Your task to perform on an android device: Go to internet settings Image 0: 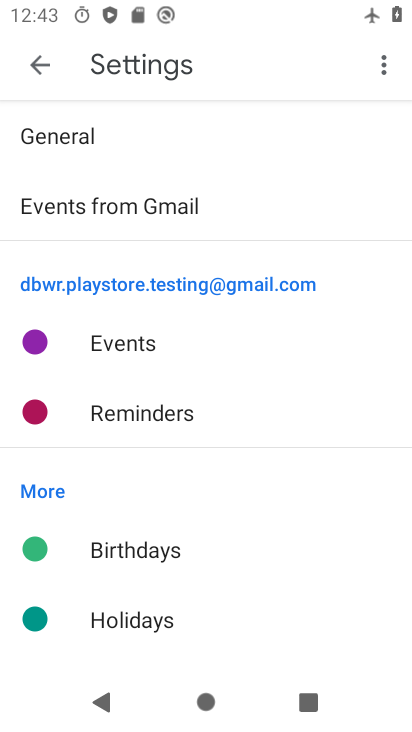
Step 0: press home button
Your task to perform on an android device: Go to internet settings Image 1: 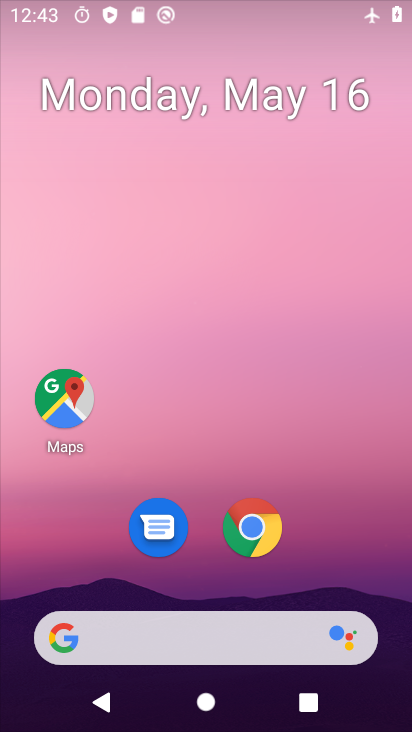
Step 1: drag from (160, 636) to (332, 21)
Your task to perform on an android device: Go to internet settings Image 2: 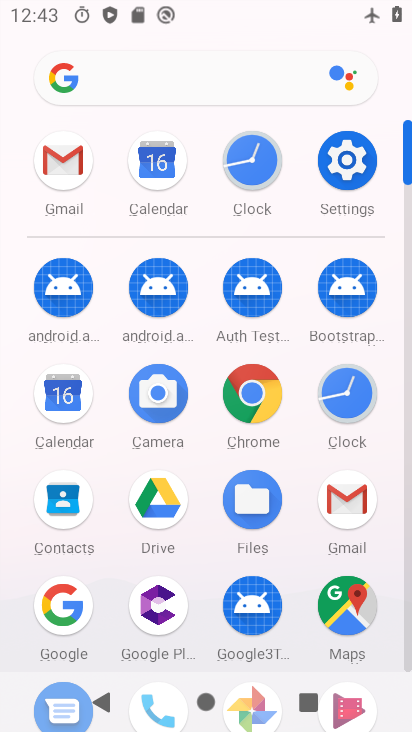
Step 2: click (341, 174)
Your task to perform on an android device: Go to internet settings Image 3: 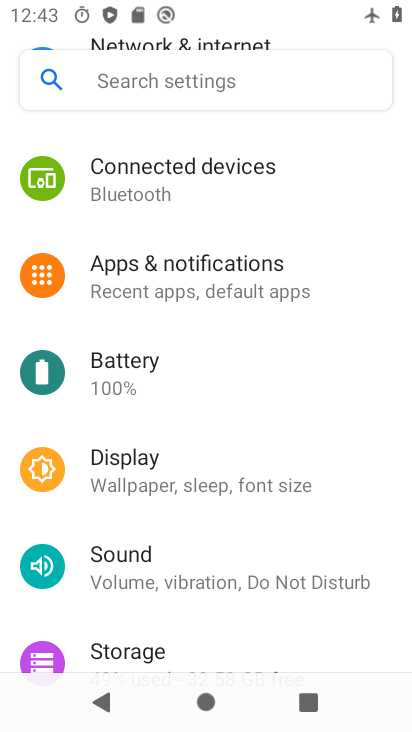
Step 3: drag from (337, 164) to (302, 514)
Your task to perform on an android device: Go to internet settings Image 4: 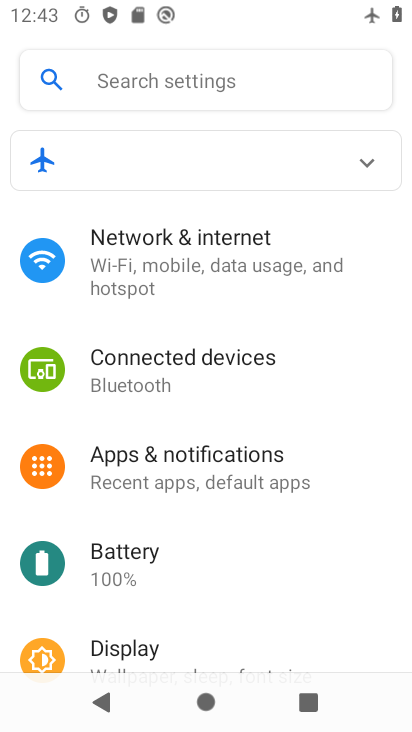
Step 4: click (192, 253)
Your task to perform on an android device: Go to internet settings Image 5: 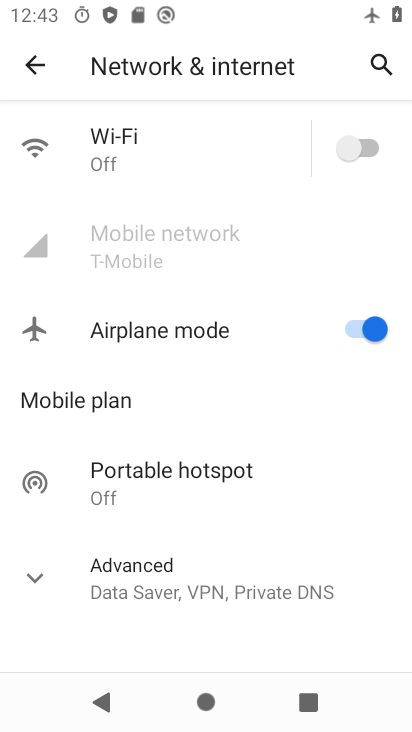
Step 5: task complete